Your task to perform on an android device: Open Wikipedia Image 0: 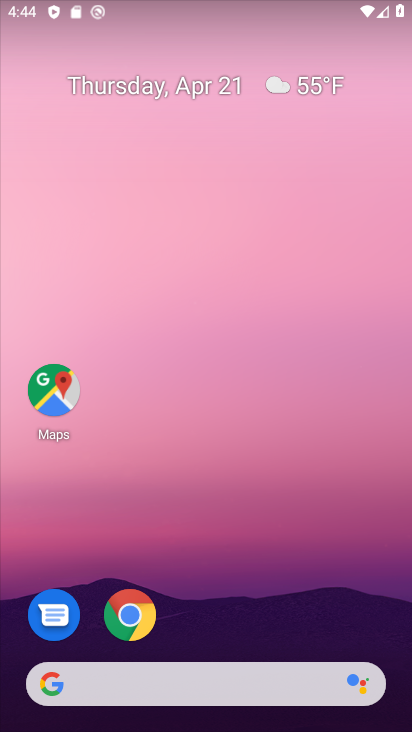
Step 0: drag from (286, 559) to (207, 61)
Your task to perform on an android device: Open Wikipedia Image 1: 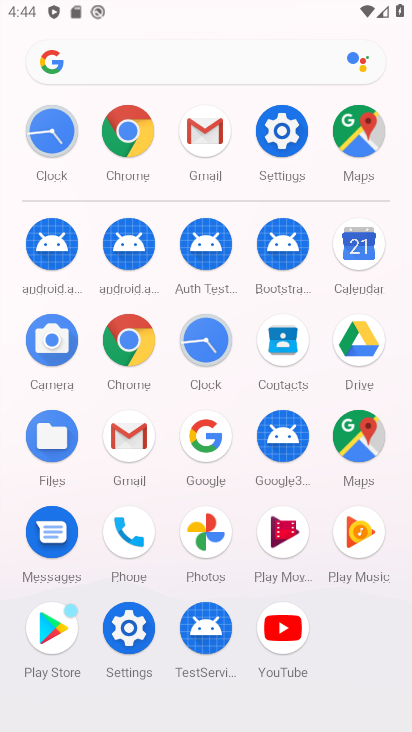
Step 1: drag from (8, 494) to (8, 217)
Your task to perform on an android device: Open Wikipedia Image 2: 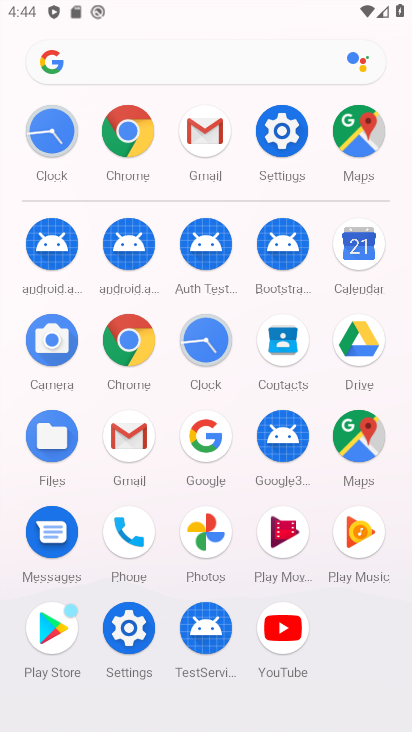
Step 2: click (132, 347)
Your task to perform on an android device: Open Wikipedia Image 3: 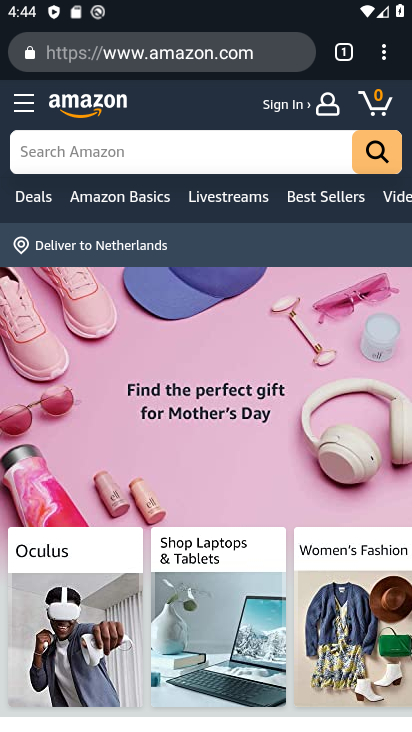
Step 3: drag from (380, 52) to (226, 651)
Your task to perform on an android device: Open Wikipedia Image 4: 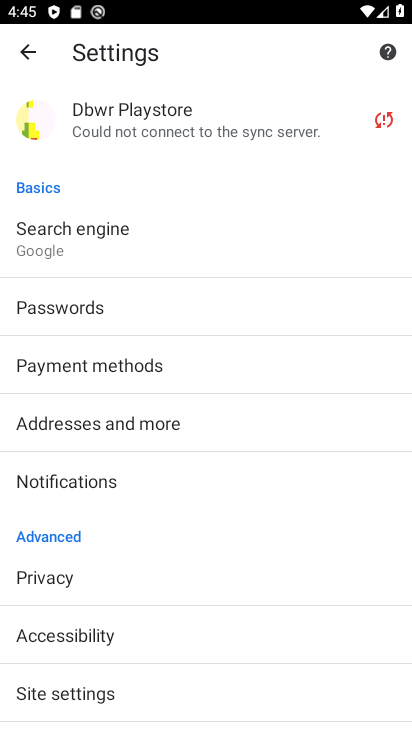
Step 4: drag from (251, 553) to (285, 306)
Your task to perform on an android device: Open Wikipedia Image 5: 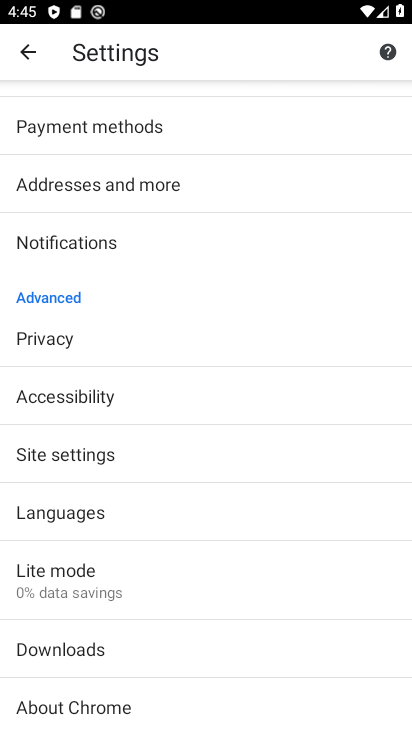
Step 5: press back button
Your task to perform on an android device: Open Wikipedia Image 6: 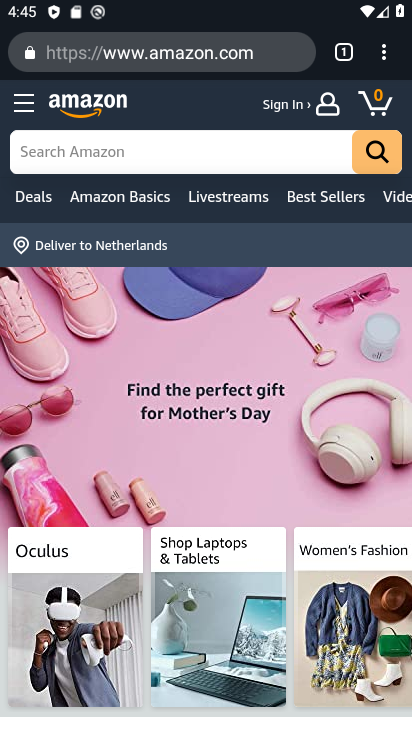
Step 6: click (219, 54)
Your task to perform on an android device: Open Wikipedia Image 7: 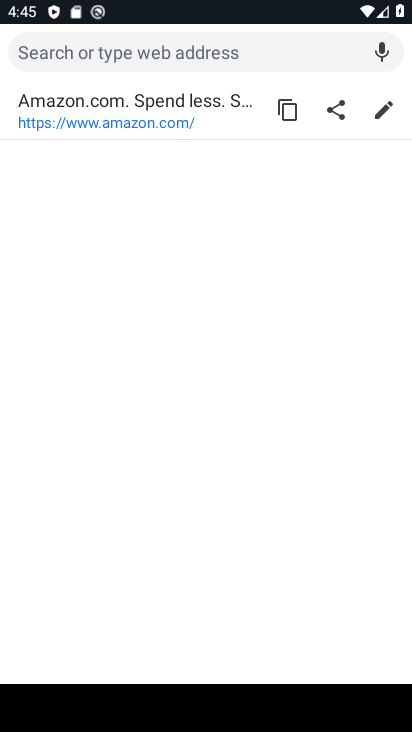
Step 7: type " Wikipedia"
Your task to perform on an android device: Open Wikipedia Image 8: 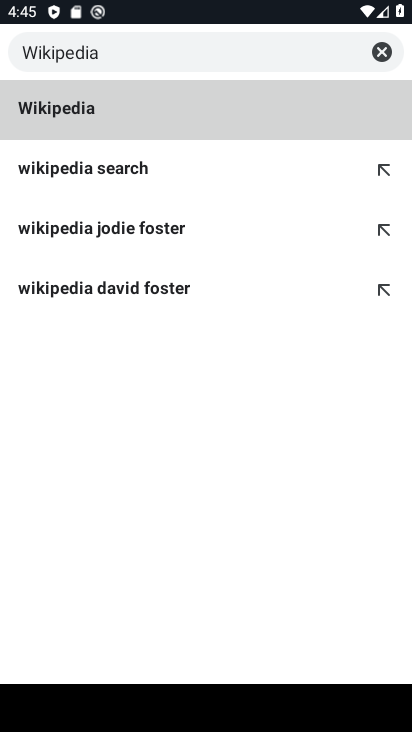
Step 8: click (97, 96)
Your task to perform on an android device: Open Wikipedia Image 9: 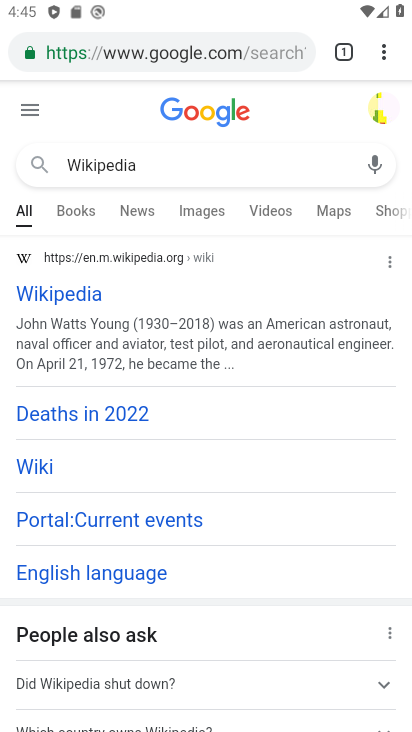
Step 9: click (46, 289)
Your task to perform on an android device: Open Wikipedia Image 10: 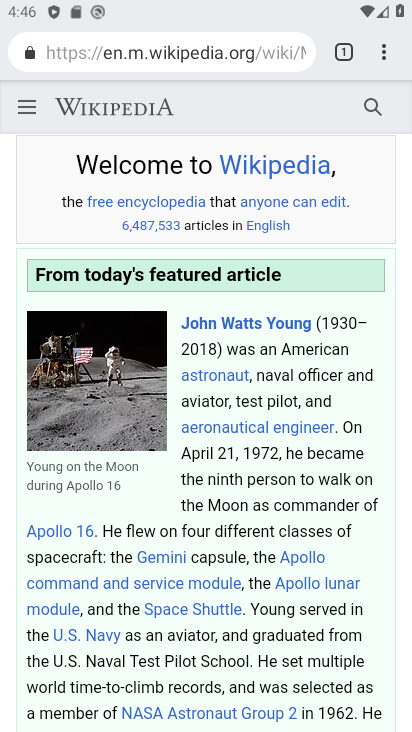
Step 10: task complete